Your task to perform on an android device: uninstall "Spotify: Music and Podcasts" Image 0: 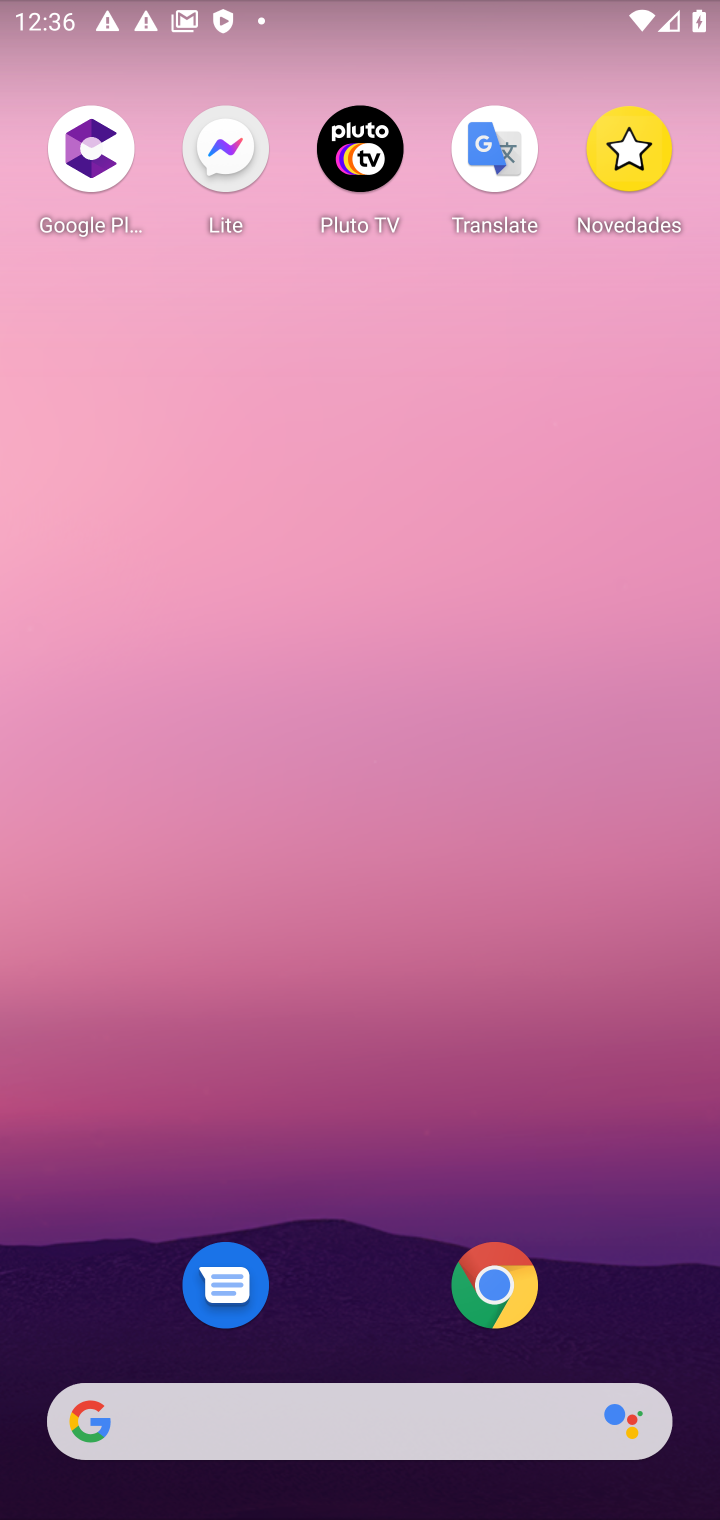
Step 0: drag from (606, 1141) to (540, 156)
Your task to perform on an android device: uninstall "Spotify: Music and Podcasts" Image 1: 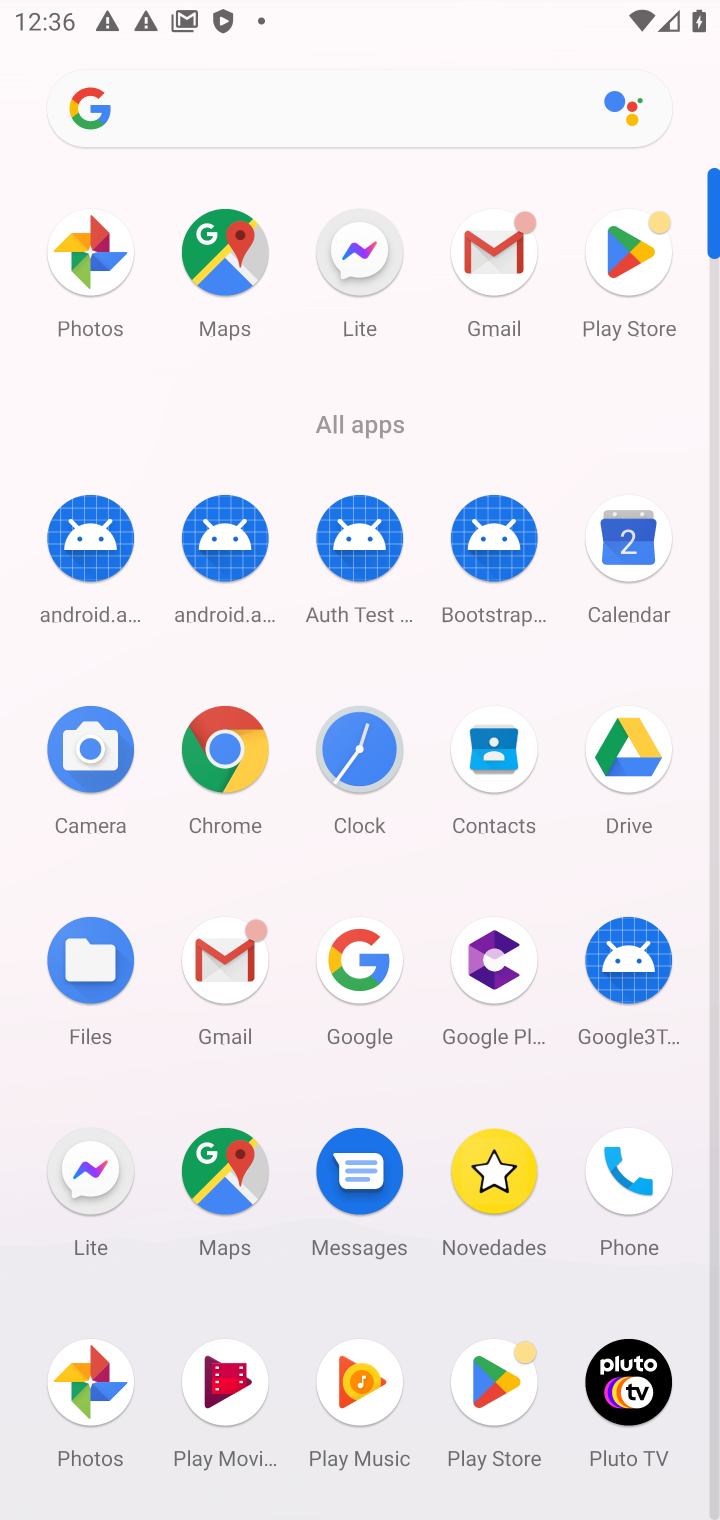
Step 1: click (486, 1381)
Your task to perform on an android device: uninstall "Spotify: Music and Podcasts" Image 2: 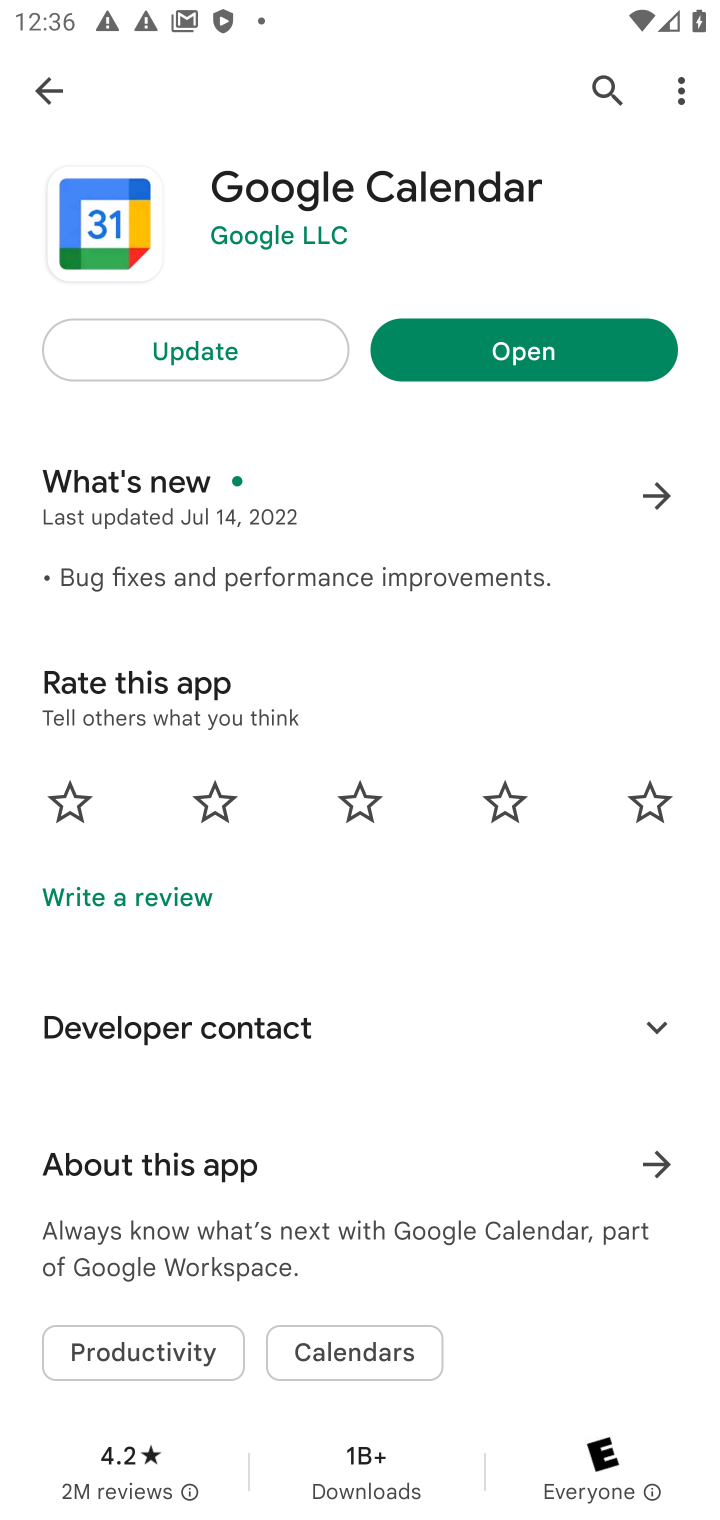
Step 2: click (632, 68)
Your task to perform on an android device: uninstall "Spotify: Music and Podcasts" Image 3: 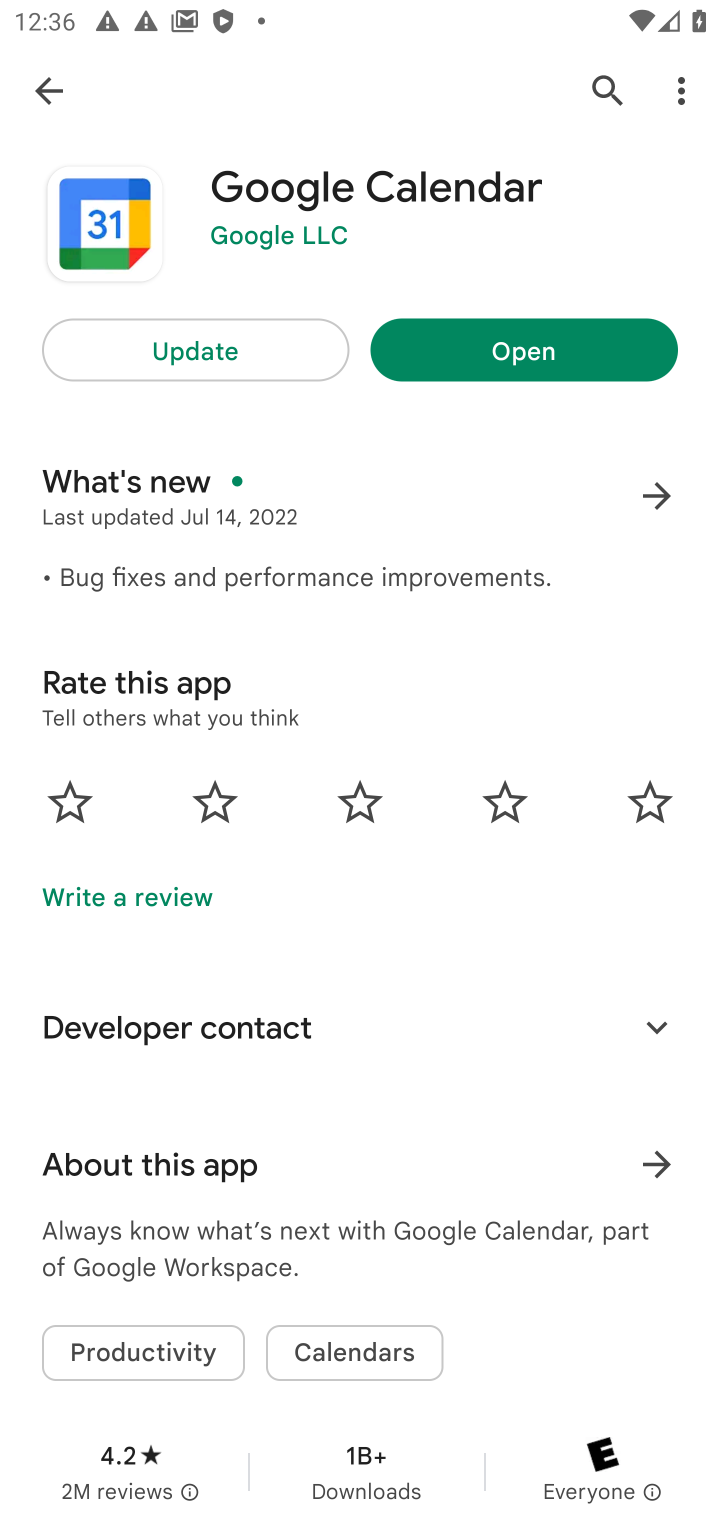
Step 3: click (601, 83)
Your task to perform on an android device: uninstall "Spotify: Music and Podcasts" Image 4: 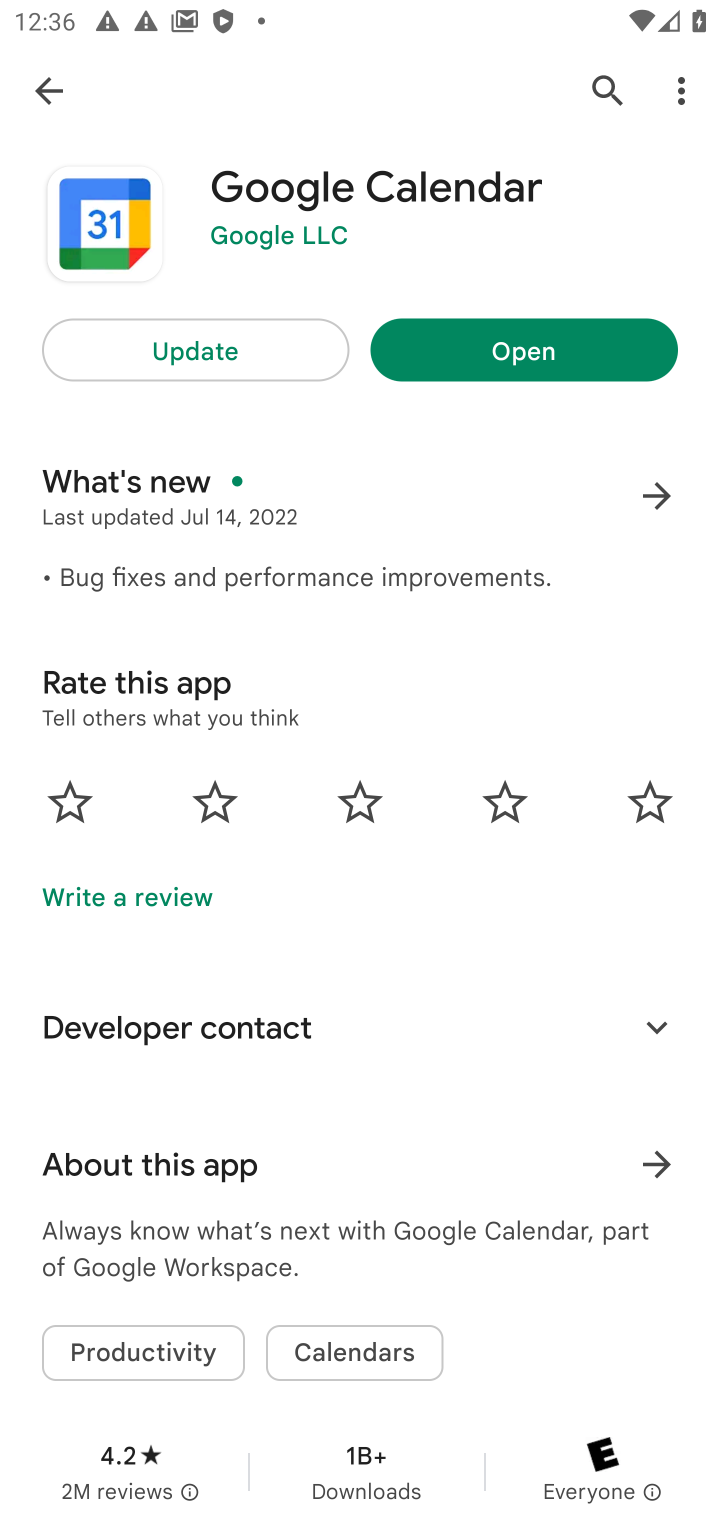
Step 4: click (43, 70)
Your task to perform on an android device: uninstall "Spotify: Music and Podcasts" Image 5: 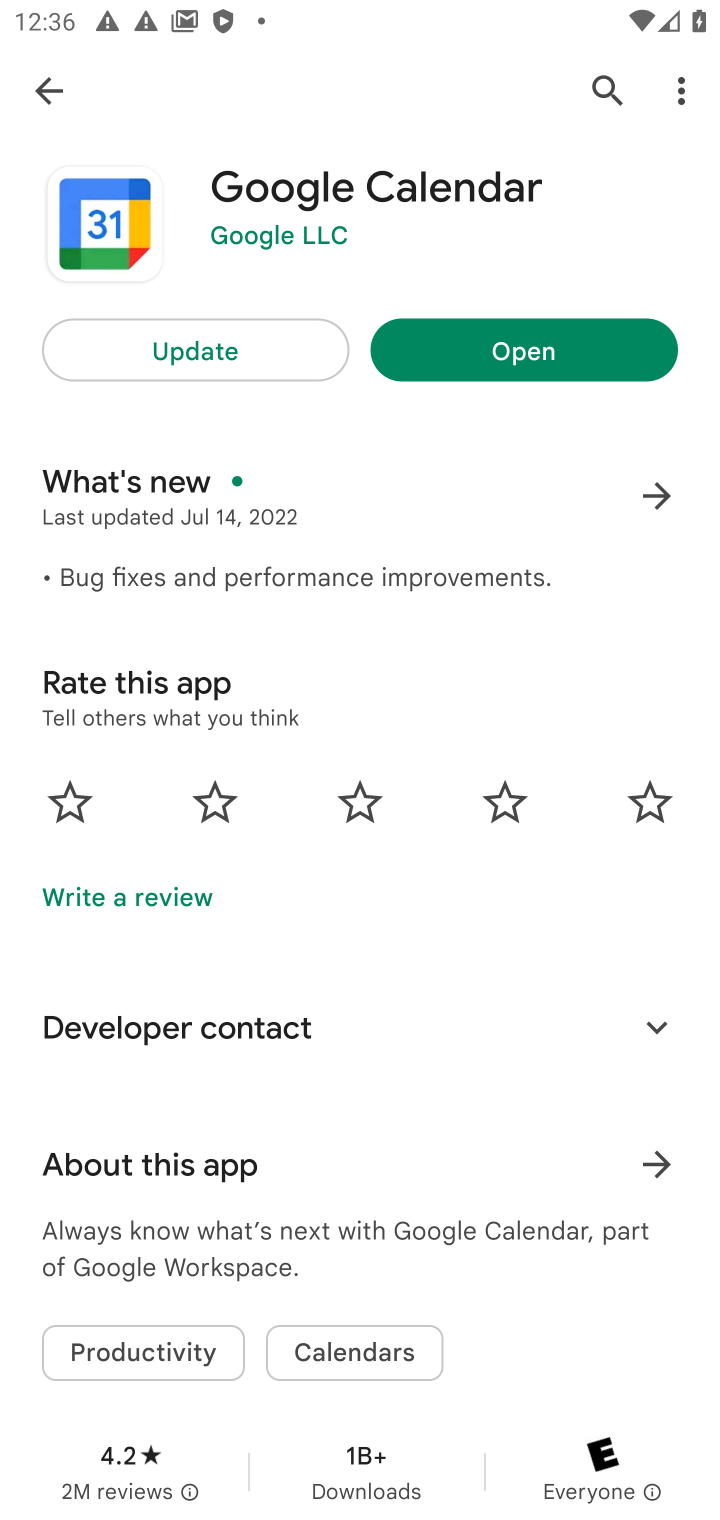
Step 5: press back button
Your task to perform on an android device: uninstall "Spotify: Music and Podcasts" Image 6: 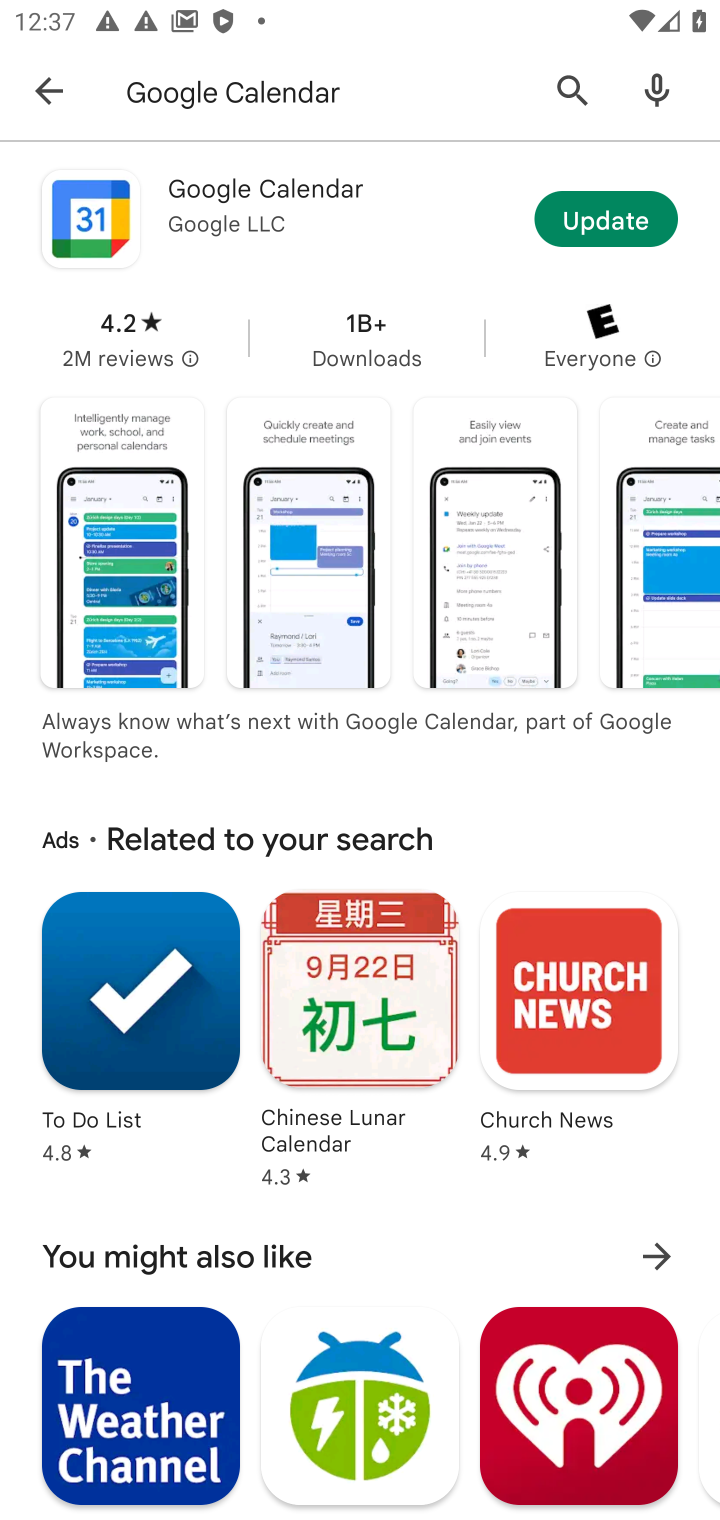
Step 6: click (307, 92)
Your task to perform on an android device: uninstall "Spotify: Music and Podcasts" Image 7: 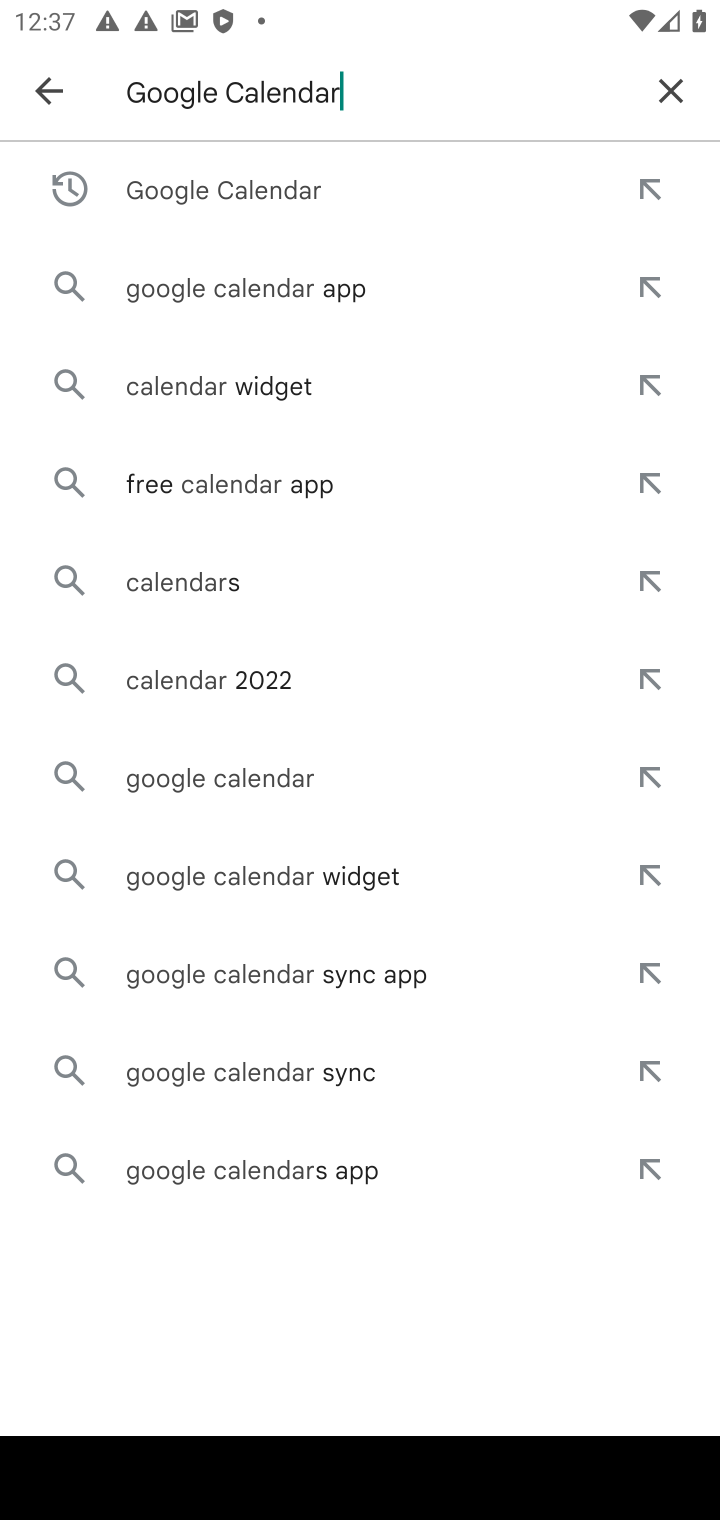
Step 7: click (664, 84)
Your task to perform on an android device: uninstall "Spotify: Music and Podcasts" Image 8: 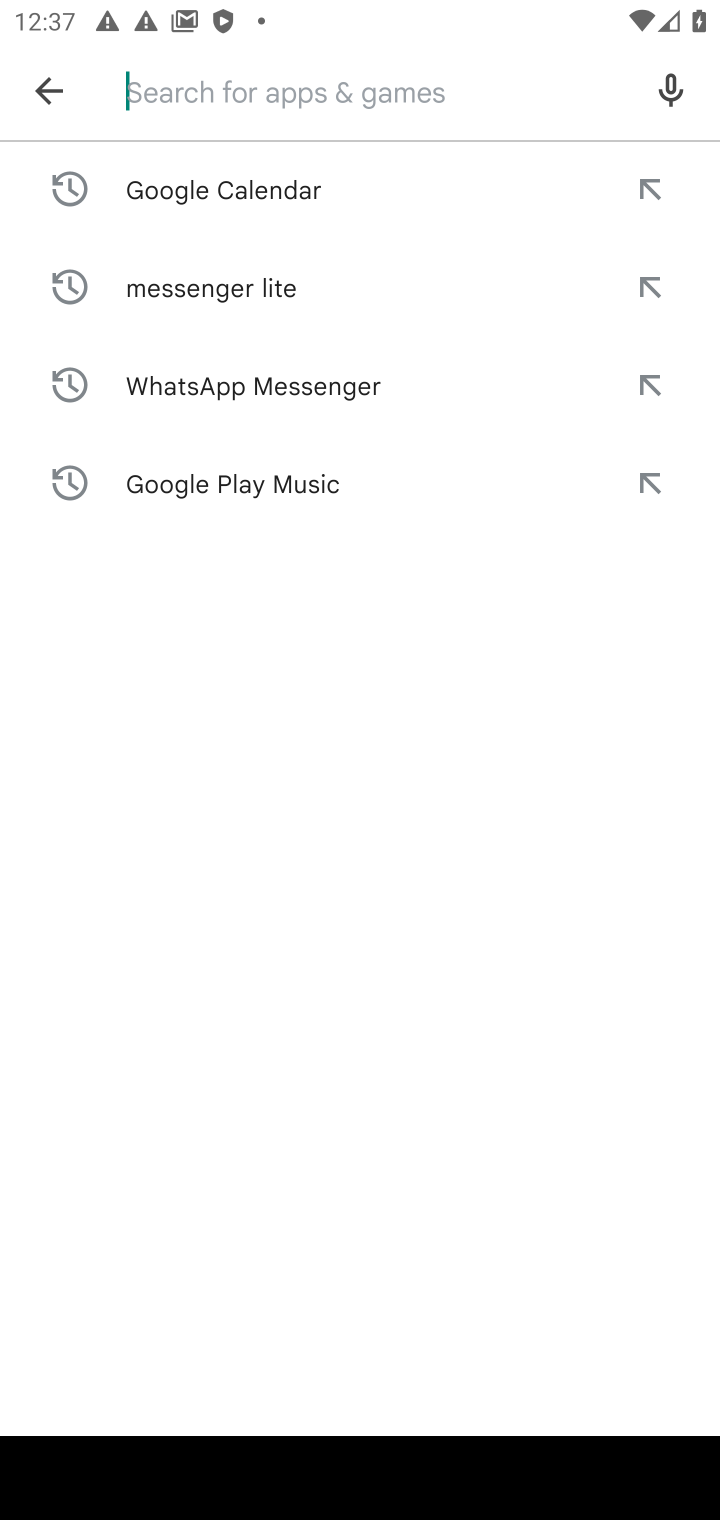
Step 8: type "Spotify: Music and Podcasts"
Your task to perform on an android device: uninstall "Spotify: Music and Podcasts" Image 9: 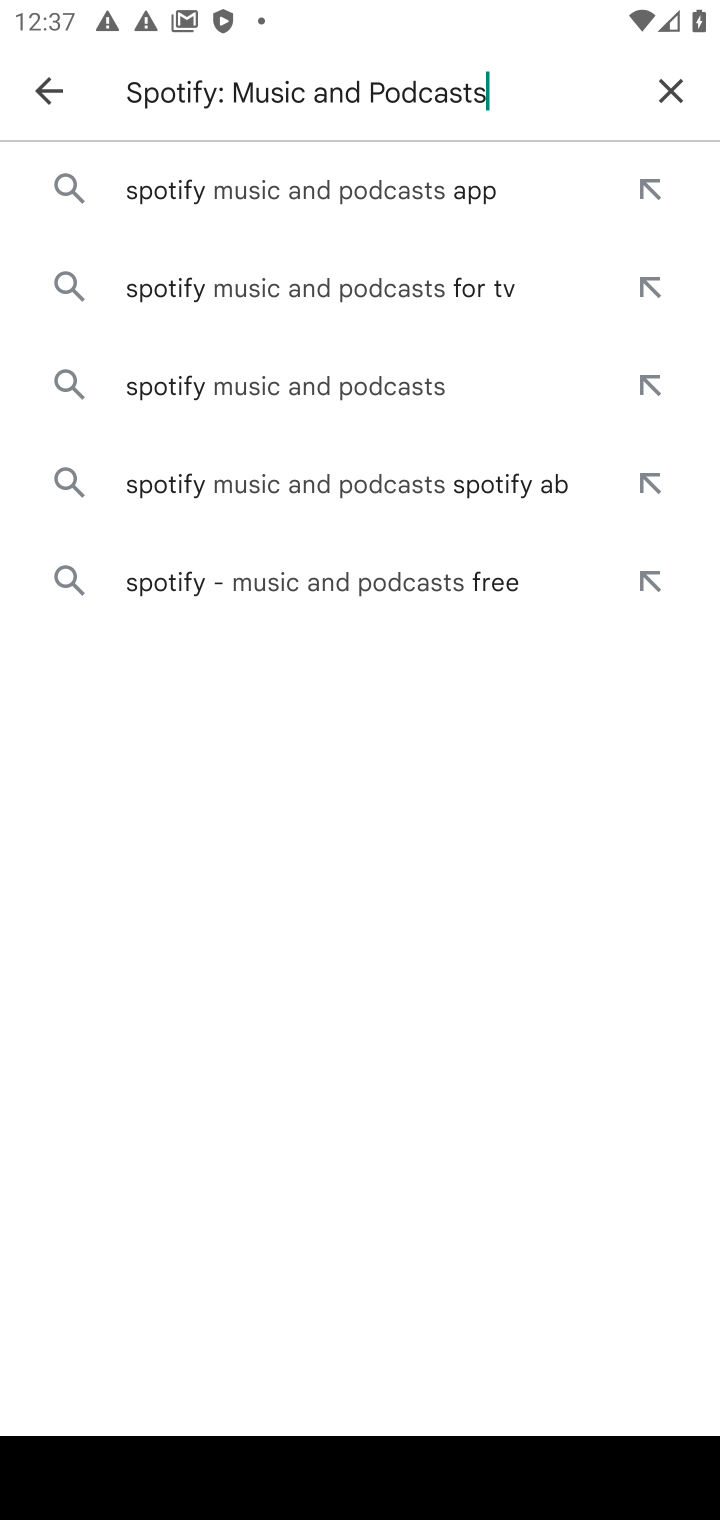
Step 9: press enter
Your task to perform on an android device: uninstall "Spotify: Music and Podcasts" Image 10: 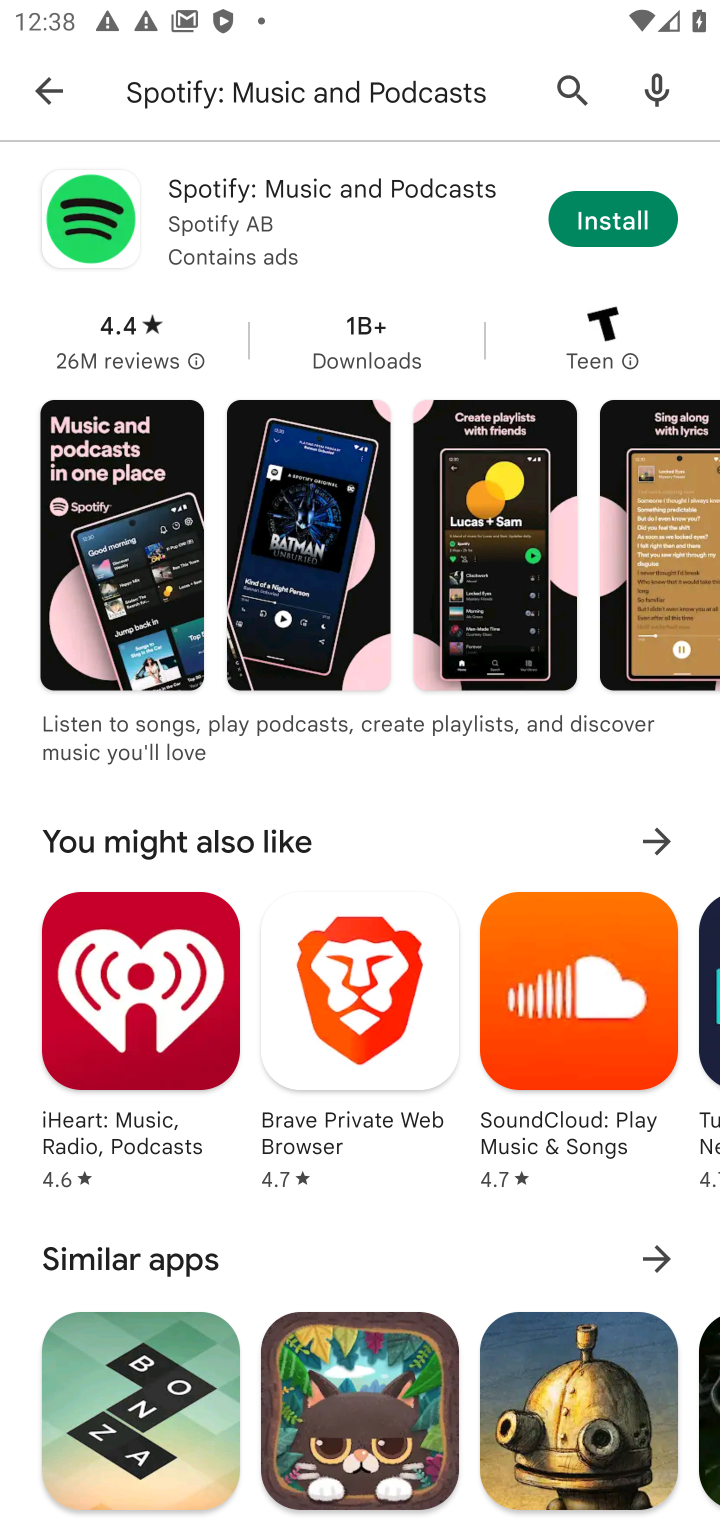
Step 10: task complete